Your task to perform on an android device: turn off priority inbox in the gmail app Image 0: 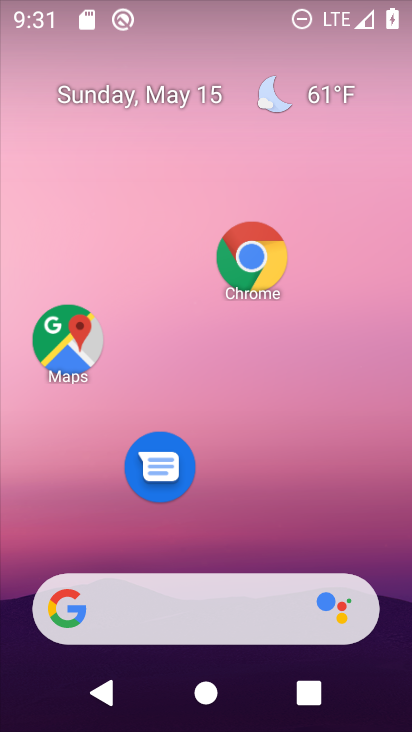
Step 0: drag from (215, 532) to (380, 0)
Your task to perform on an android device: turn off priority inbox in the gmail app Image 1: 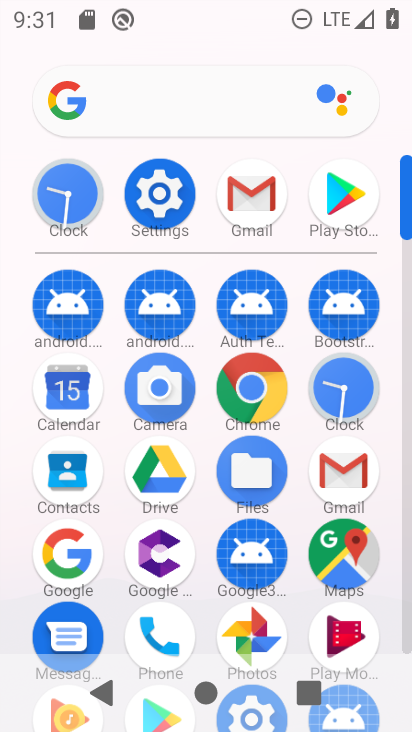
Step 1: click (253, 192)
Your task to perform on an android device: turn off priority inbox in the gmail app Image 2: 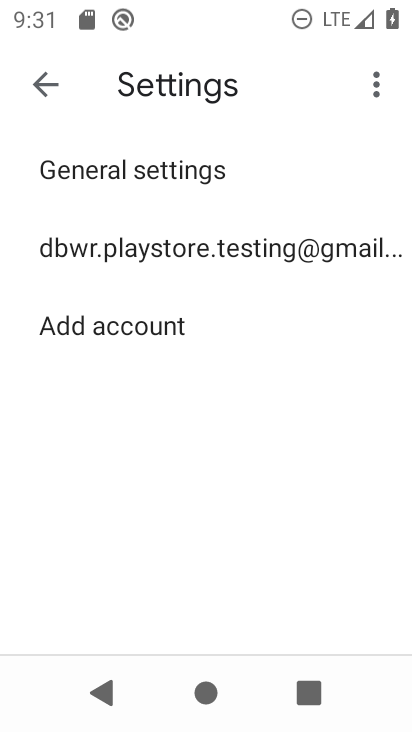
Step 2: click (71, 98)
Your task to perform on an android device: turn off priority inbox in the gmail app Image 3: 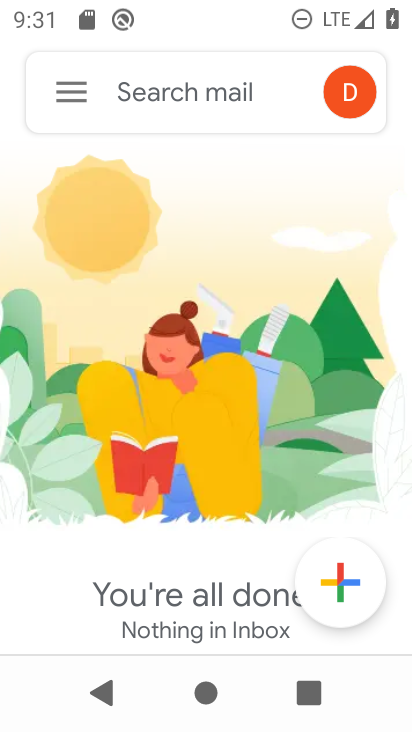
Step 3: click (71, 98)
Your task to perform on an android device: turn off priority inbox in the gmail app Image 4: 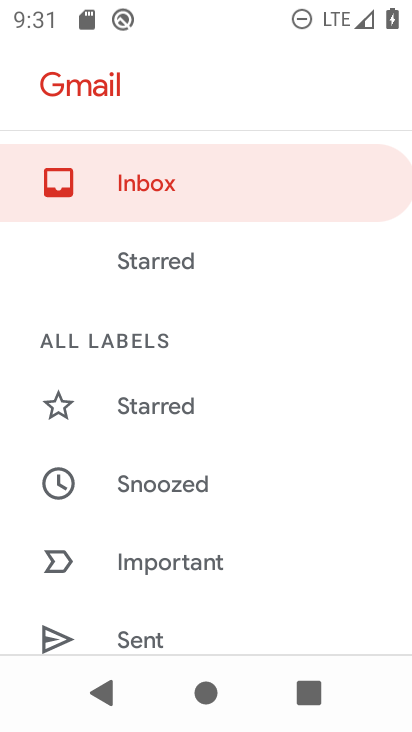
Step 4: drag from (188, 644) to (257, 78)
Your task to perform on an android device: turn off priority inbox in the gmail app Image 5: 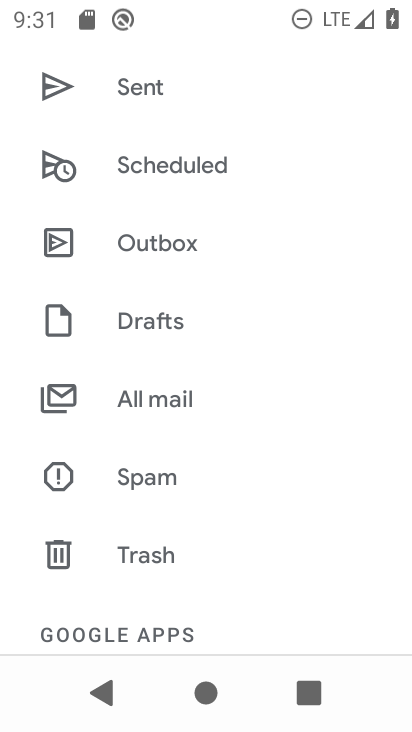
Step 5: drag from (145, 570) to (200, 192)
Your task to perform on an android device: turn off priority inbox in the gmail app Image 6: 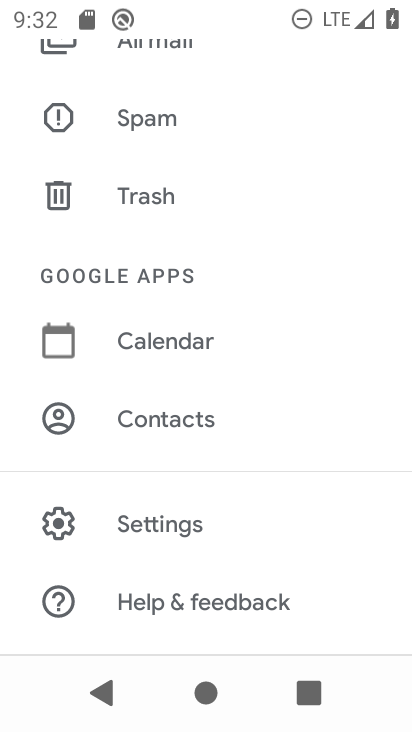
Step 6: click (213, 521)
Your task to perform on an android device: turn off priority inbox in the gmail app Image 7: 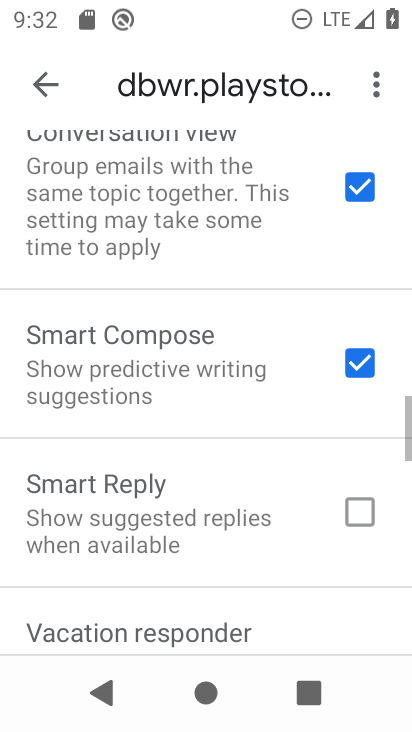
Step 7: click (213, 521)
Your task to perform on an android device: turn off priority inbox in the gmail app Image 8: 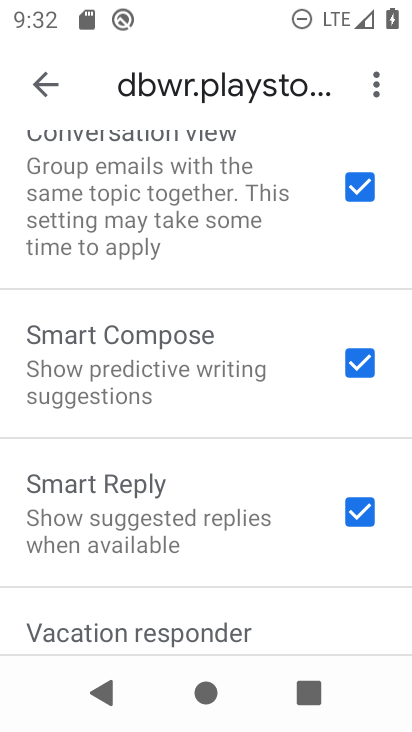
Step 8: drag from (265, 232) to (212, 640)
Your task to perform on an android device: turn off priority inbox in the gmail app Image 9: 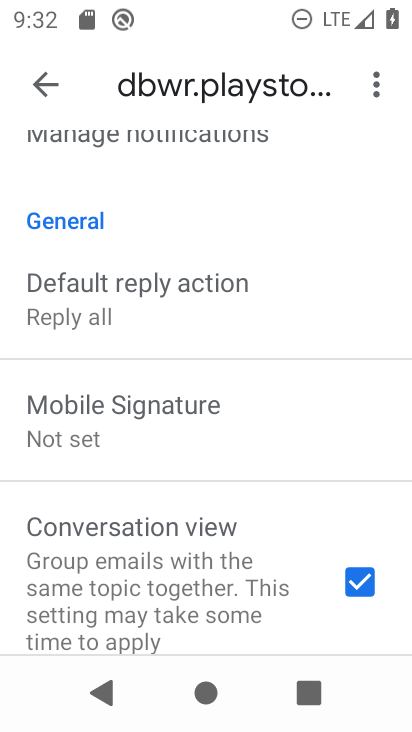
Step 9: drag from (137, 207) to (198, 680)
Your task to perform on an android device: turn off priority inbox in the gmail app Image 10: 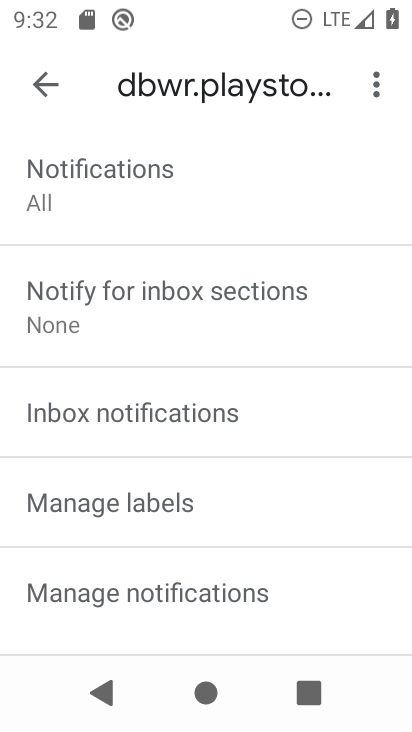
Step 10: drag from (177, 240) to (219, 700)
Your task to perform on an android device: turn off priority inbox in the gmail app Image 11: 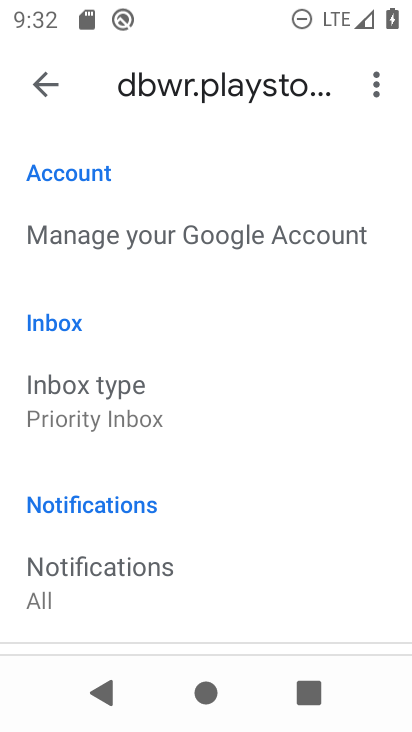
Step 11: click (120, 391)
Your task to perform on an android device: turn off priority inbox in the gmail app Image 12: 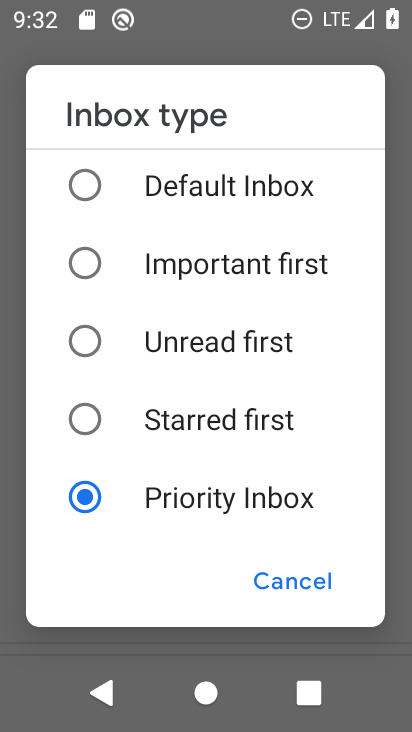
Step 12: click (121, 419)
Your task to perform on an android device: turn off priority inbox in the gmail app Image 13: 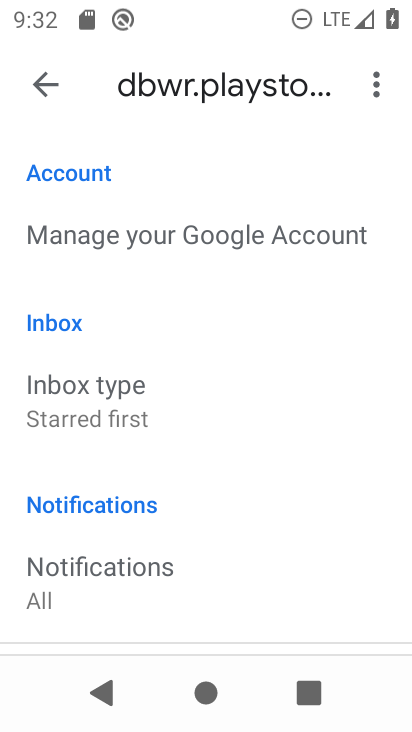
Step 13: task complete